Your task to perform on an android device: What is the recent news? Image 0: 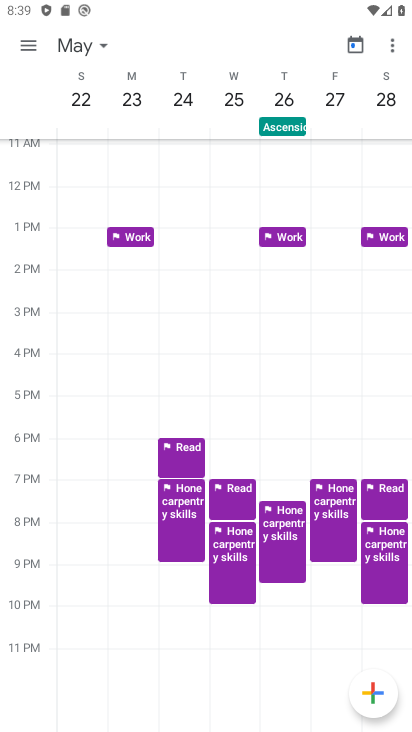
Step 0: press home button
Your task to perform on an android device: What is the recent news? Image 1: 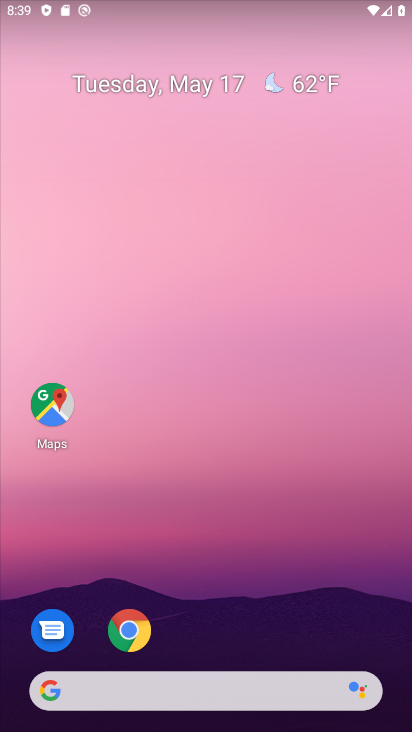
Step 1: click (128, 639)
Your task to perform on an android device: What is the recent news? Image 2: 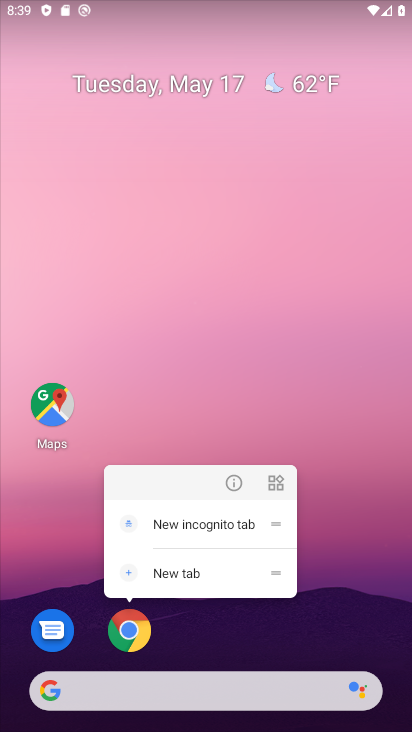
Step 2: click (203, 662)
Your task to perform on an android device: What is the recent news? Image 3: 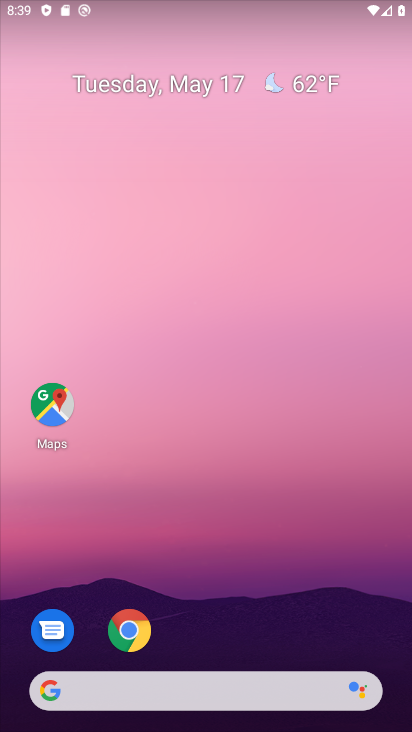
Step 3: click (212, 701)
Your task to perform on an android device: What is the recent news? Image 4: 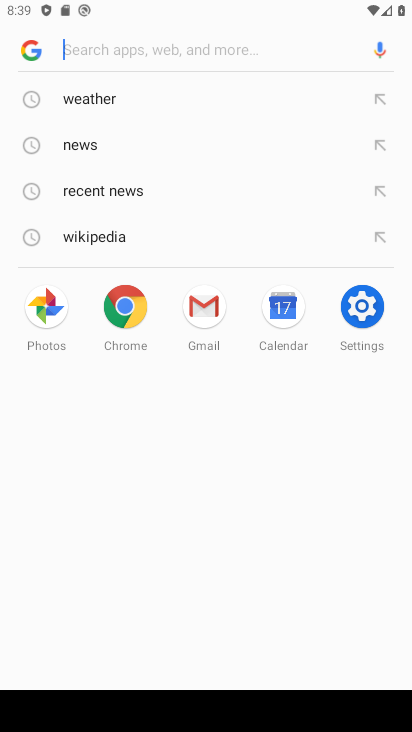
Step 4: click (127, 193)
Your task to perform on an android device: What is the recent news? Image 5: 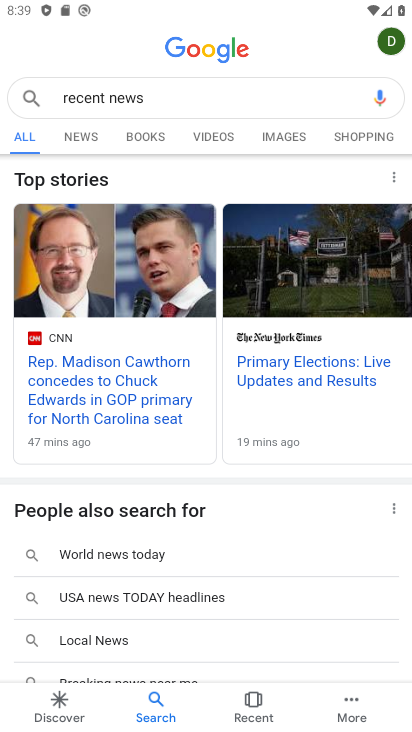
Step 5: task complete